Your task to perform on an android device: move a message to another label in the gmail app Image 0: 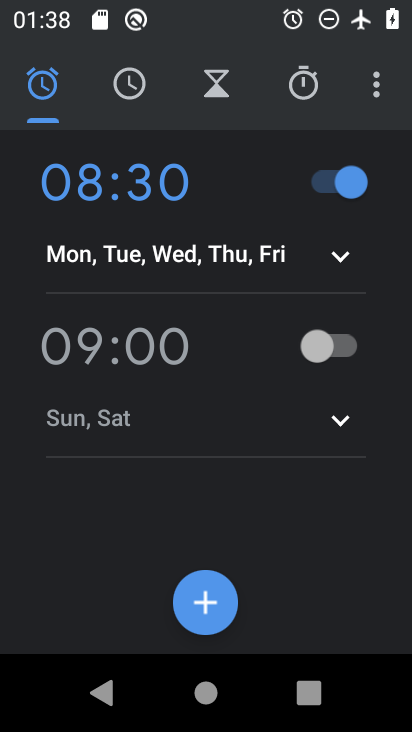
Step 0: press home button
Your task to perform on an android device: move a message to another label in the gmail app Image 1: 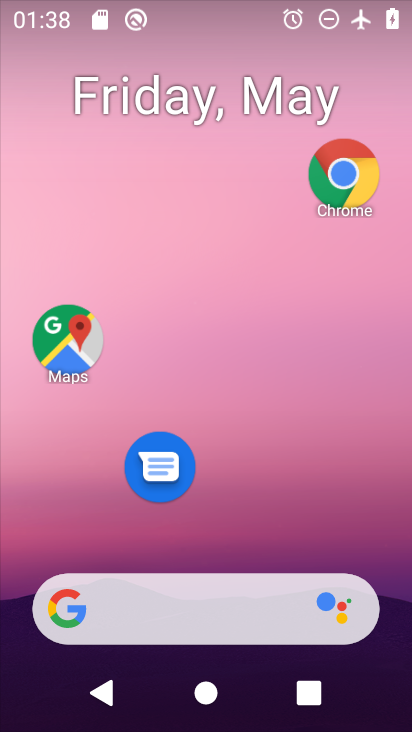
Step 1: drag from (251, 521) to (239, 220)
Your task to perform on an android device: move a message to another label in the gmail app Image 2: 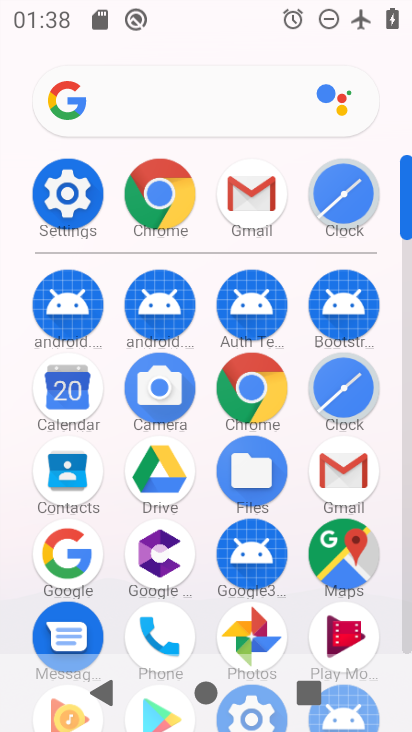
Step 2: click (341, 469)
Your task to perform on an android device: move a message to another label in the gmail app Image 3: 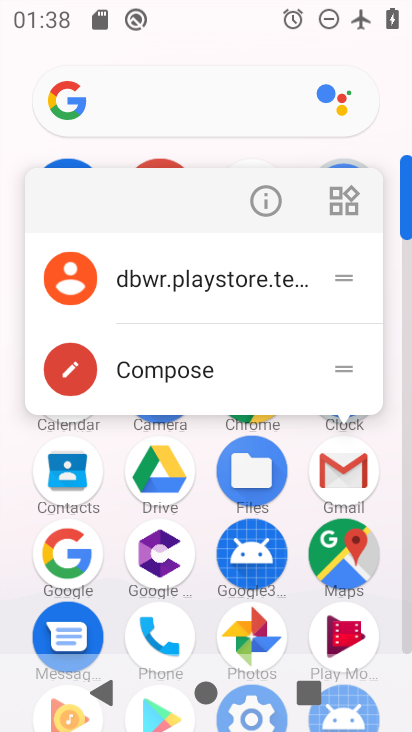
Step 3: click (345, 466)
Your task to perform on an android device: move a message to another label in the gmail app Image 4: 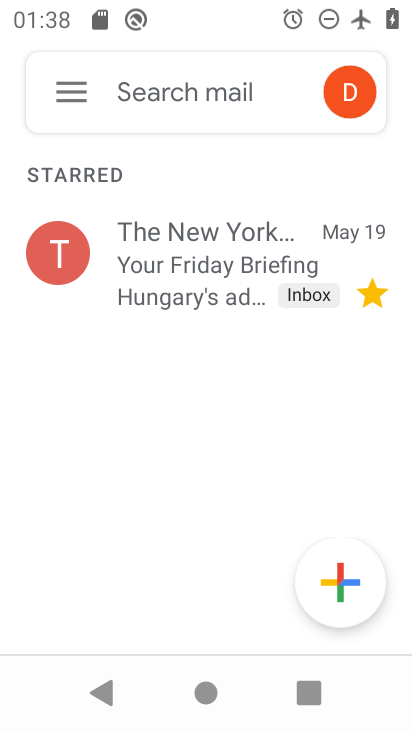
Step 4: click (65, 242)
Your task to perform on an android device: move a message to another label in the gmail app Image 5: 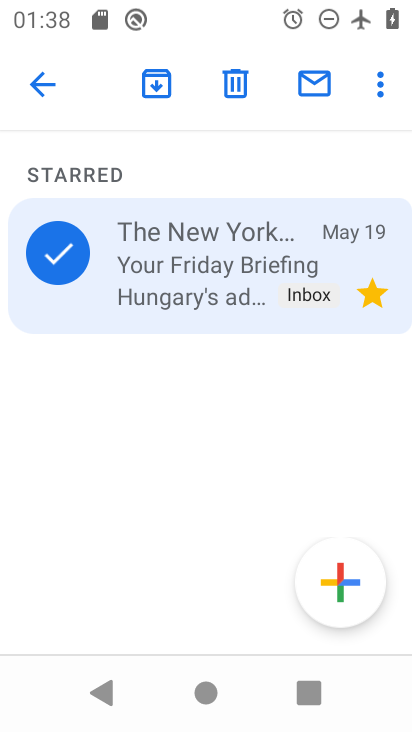
Step 5: click (367, 78)
Your task to perform on an android device: move a message to another label in the gmail app Image 6: 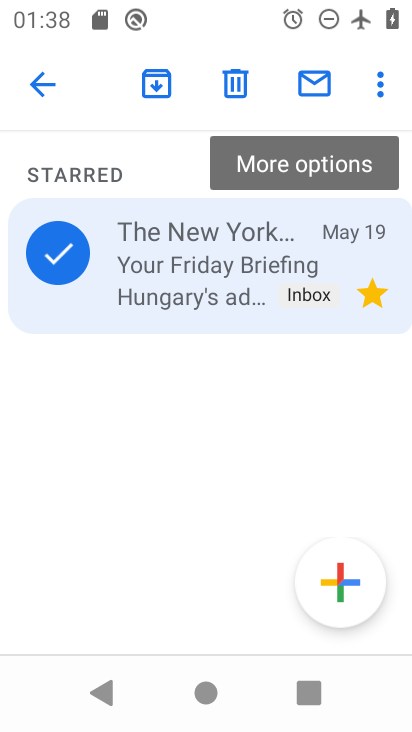
Step 6: click (378, 63)
Your task to perform on an android device: move a message to another label in the gmail app Image 7: 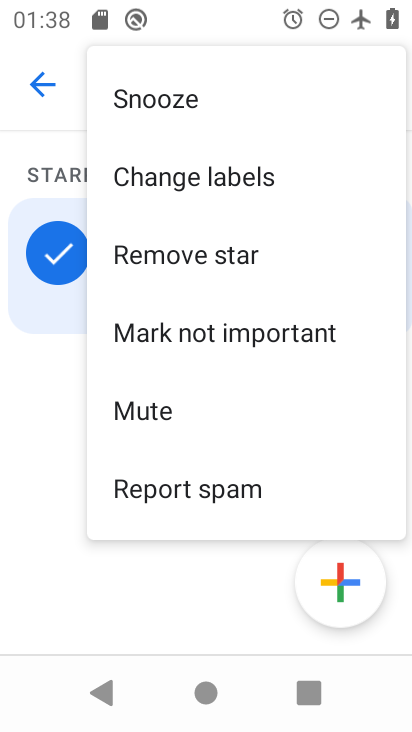
Step 7: click (204, 185)
Your task to perform on an android device: move a message to another label in the gmail app Image 8: 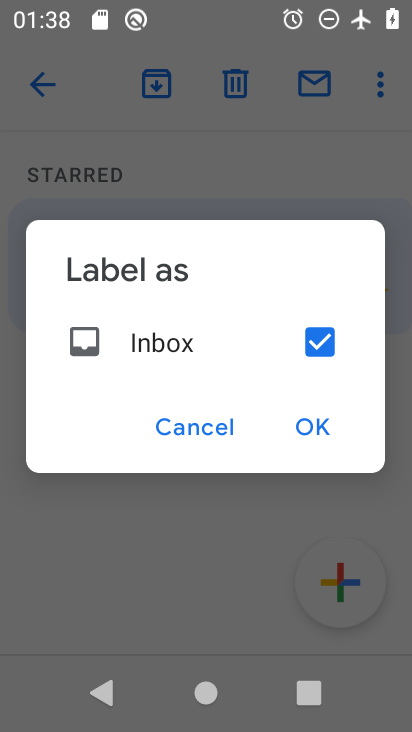
Step 8: click (304, 408)
Your task to perform on an android device: move a message to another label in the gmail app Image 9: 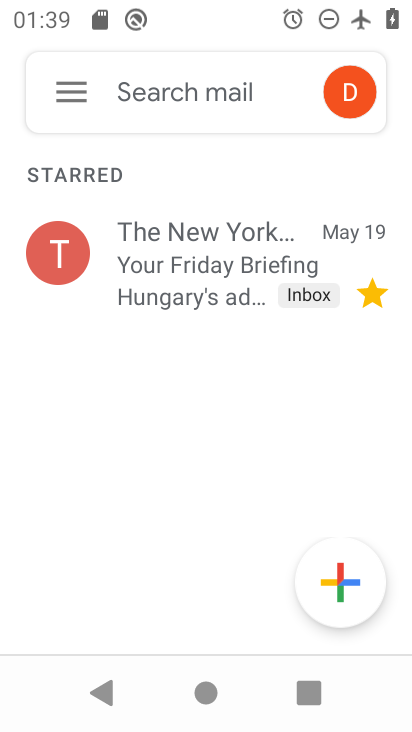
Step 9: task complete